Your task to perform on an android device: toggle notifications settings in the gmail app Image 0: 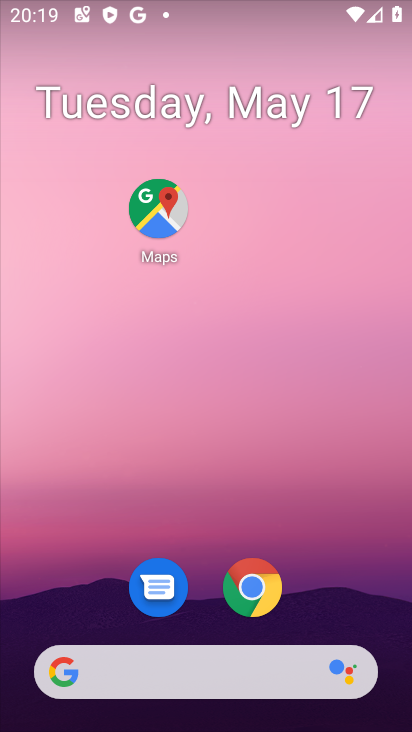
Step 0: drag from (14, 628) to (315, 205)
Your task to perform on an android device: toggle notifications settings in the gmail app Image 1: 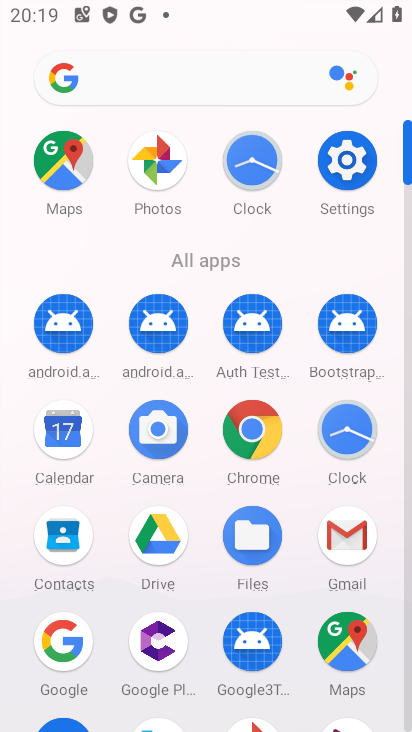
Step 1: click (352, 532)
Your task to perform on an android device: toggle notifications settings in the gmail app Image 2: 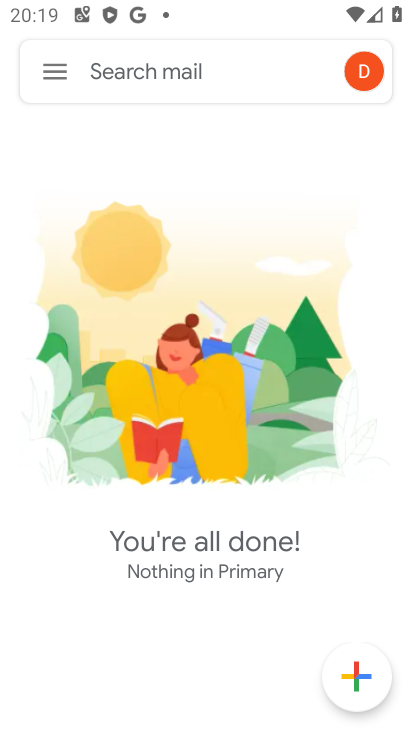
Step 2: click (39, 70)
Your task to perform on an android device: toggle notifications settings in the gmail app Image 3: 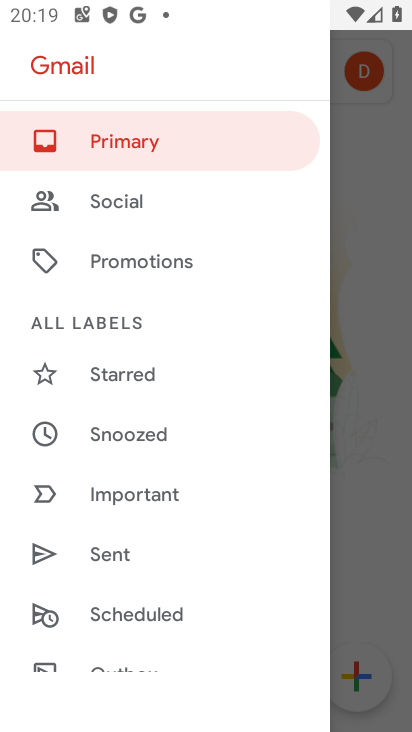
Step 3: drag from (10, 594) to (249, 167)
Your task to perform on an android device: toggle notifications settings in the gmail app Image 4: 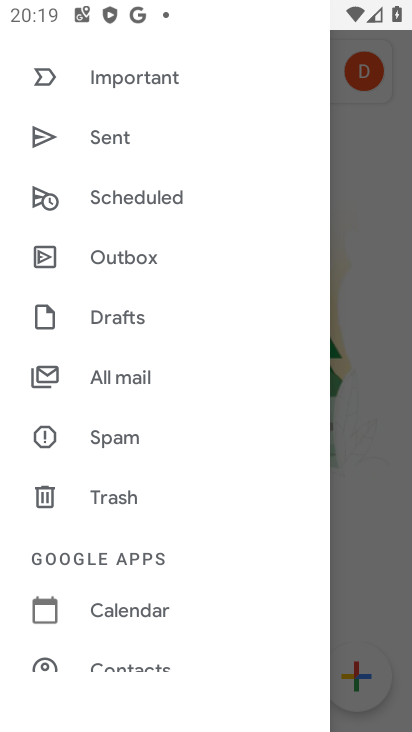
Step 4: drag from (31, 482) to (162, 251)
Your task to perform on an android device: toggle notifications settings in the gmail app Image 5: 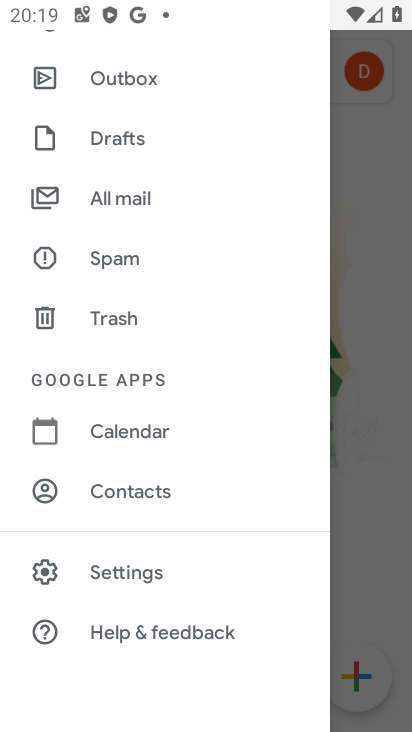
Step 5: click (156, 565)
Your task to perform on an android device: toggle notifications settings in the gmail app Image 6: 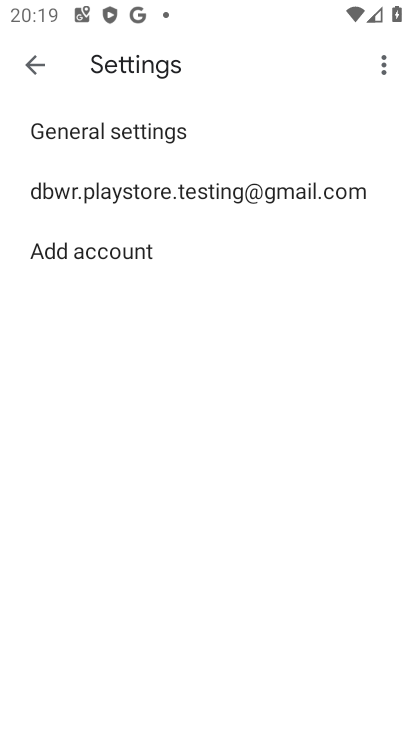
Step 6: click (92, 190)
Your task to perform on an android device: toggle notifications settings in the gmail app Image 7: 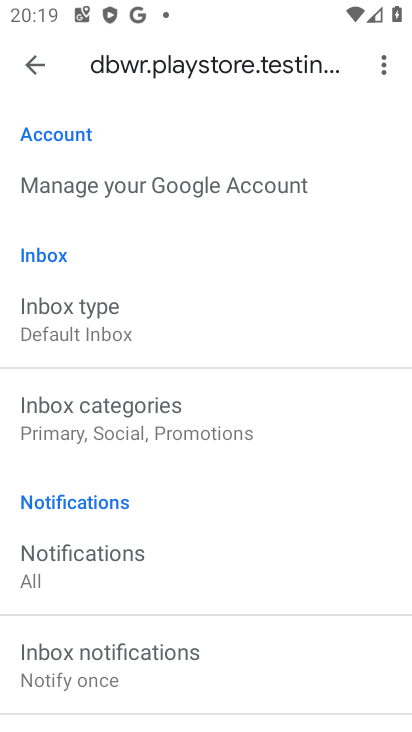
Step 7: drag from (21, 578) to (272, 172)
Your task to perform on an android device: toggle notifications settings in the gmail app Image 8: 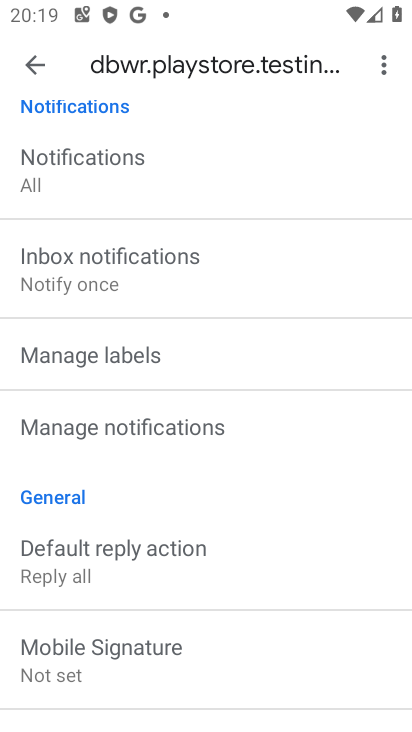
Step 8: drag from (0, 684) to (201, 277)
Your task to perform on an android device: toggle notifications settings in the gmail app Image 9: 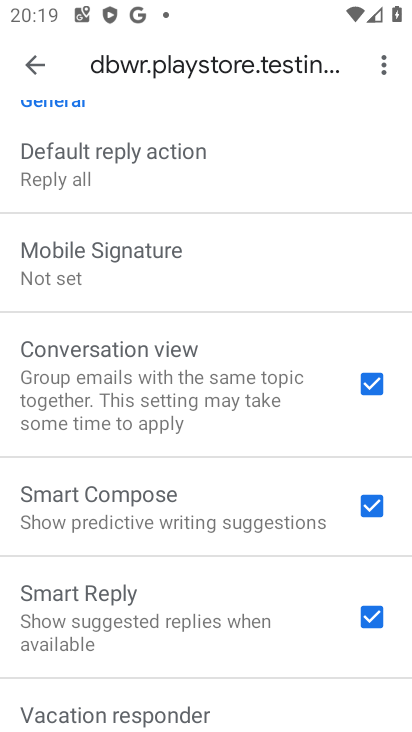
Step 9: drag from (172, 152) to (142, 560)
Your task to perform on an android device: toggle notifications settings in the gmail app Image 10: 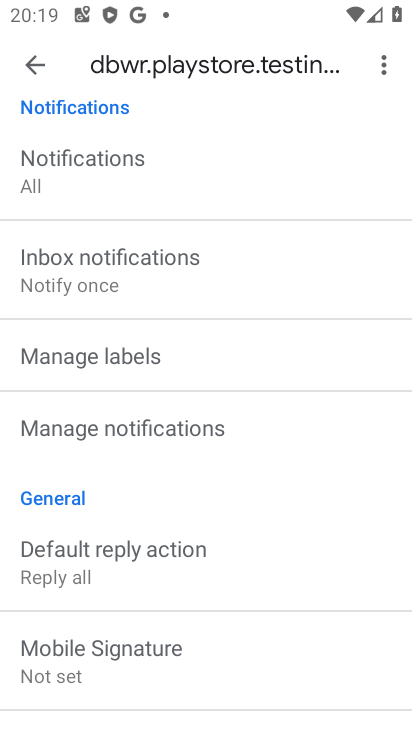
Step 10: click (172, 436)
Your task to perform on an android device: toggle notifications settings in the gmail app Image 11: 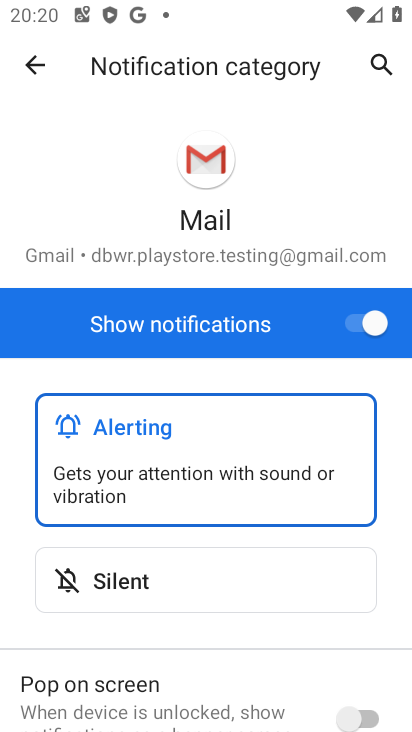
Step 11: click (379, 324)
Your task to perform on an android device: toggle notifications settings in the gmail app Image 12: 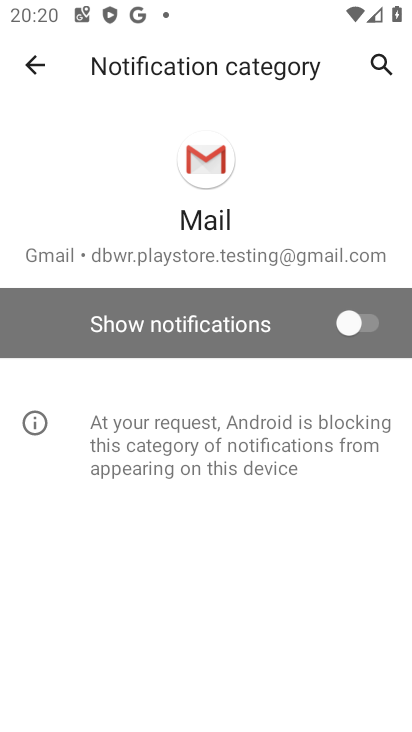
Step 12: task complete